Your task to perform on an android device: change your default location settings in chrome Image 0: 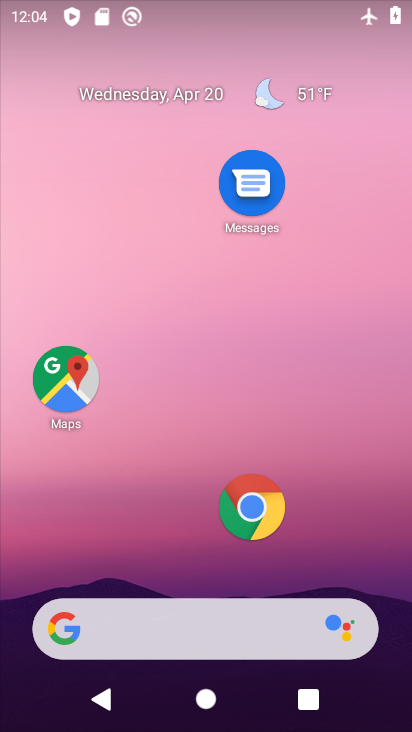
Step 0: click (257, 509)
Your task to perform on an android device: change your default location settings in chrome Image 1: 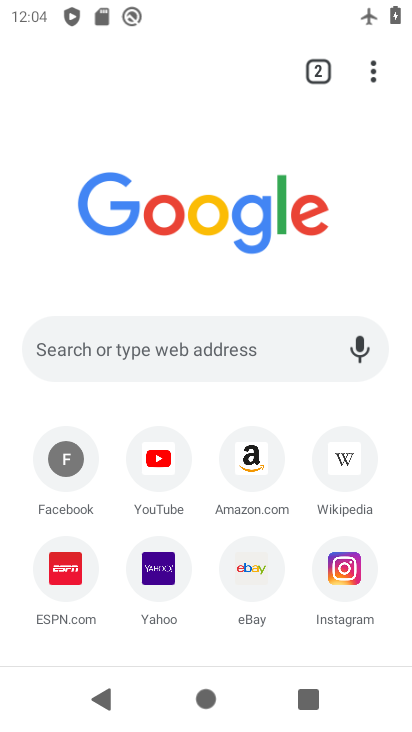
Step 1: click (372, 68)
Your task to perform on an android device: change your default location settings in chrome Image 2: 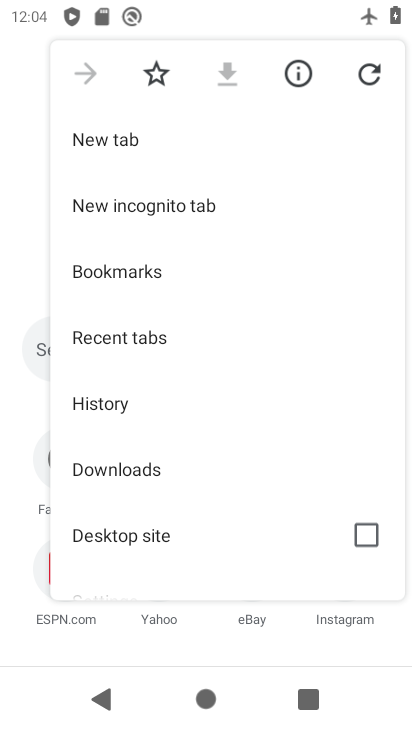
Step 2: drag from (188, 482) to (234, 358)
Your task to perform on an android device: change your default location settings in chrome Image 3: 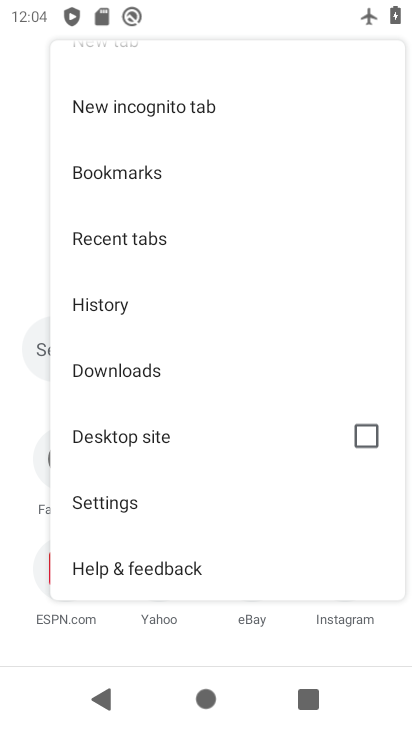
Step 3: click (84, 502)
Your task to perform on an android device: change your default location settings in chrome Image 4: 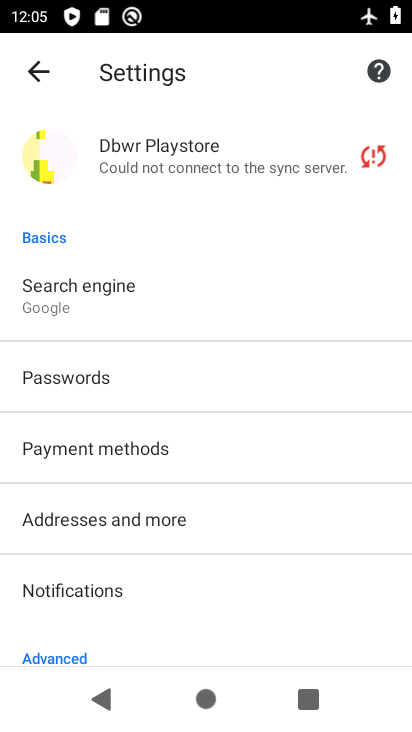
Step 4: drag from (157, 598) to (231, 433)
Your task to perform on an android device: change your default location settings in chrome Image 5: 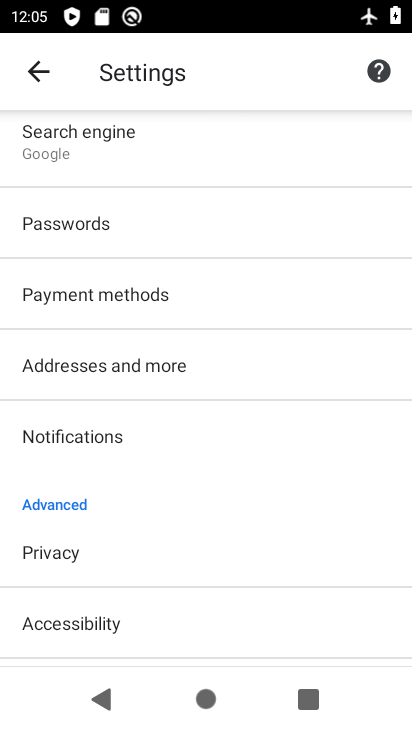
Step 5: drag from (187, 550) to (213, 391)
Your task to perform on an android device: change your default location settings in chrome Image 6: 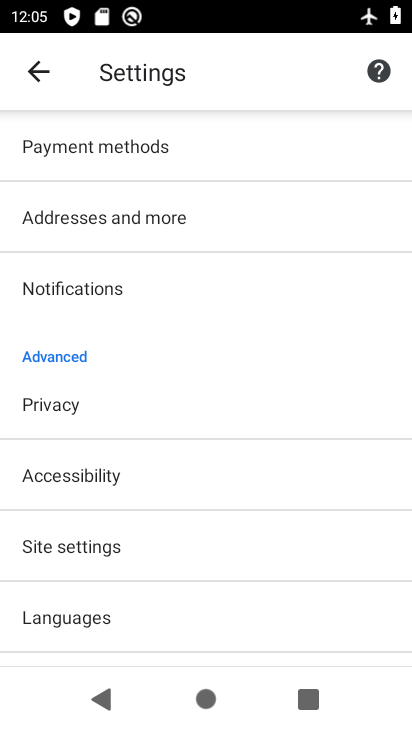
Step 6: click (86, 549)
Your task to perform on an android device: change your default location settings in chrome Image 7: 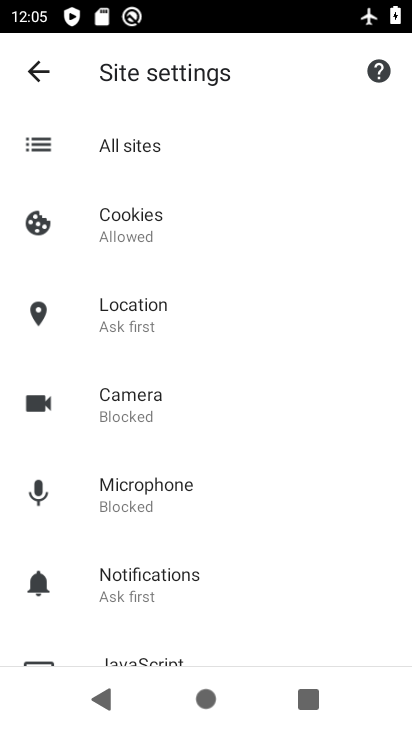
Step 7: click (174, 317)
Your task to perform on an android device: change your default location settings in chrome Image 8: 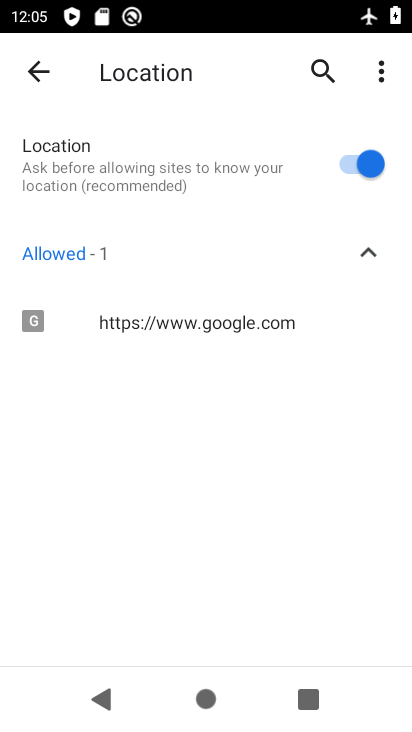
Step 8: click (377, 172)
Your task to perform on an android device: change your default location settings in chrome Image 9: 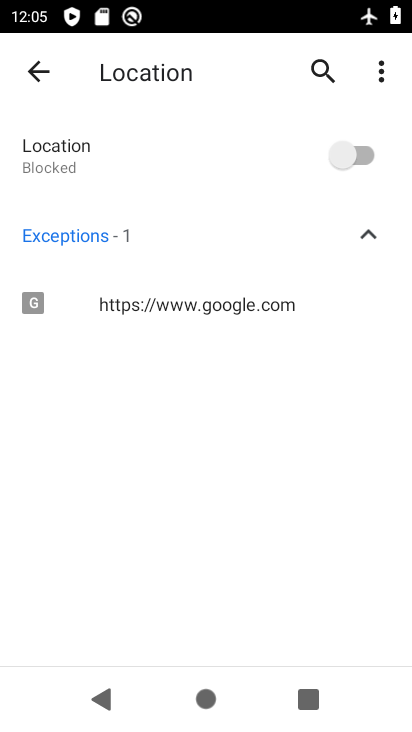
Step 9: task complete